Your task to perform on an android device: star an email in the gmail app Image 0: 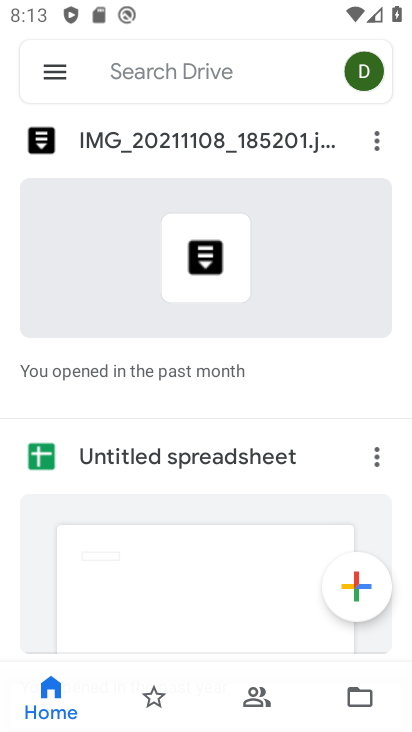
Step 0: press home button
Your task to perform on an android device: star an email in the gmail app Image 1: 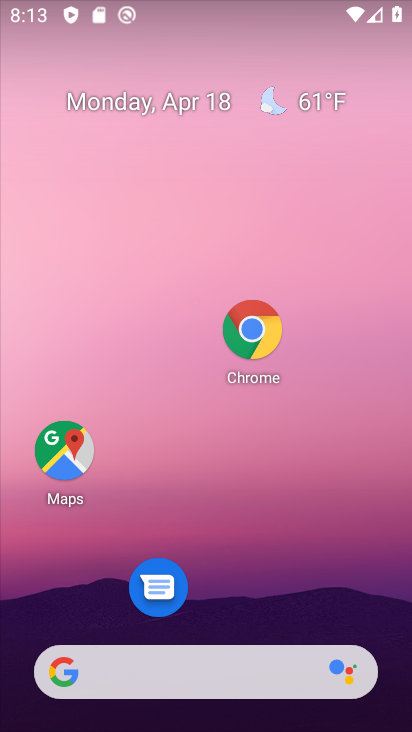
Step 1: drag from (268, 539) to (337, 107)
Your task to perform on an android device: star an email in the gmail app Image 2: 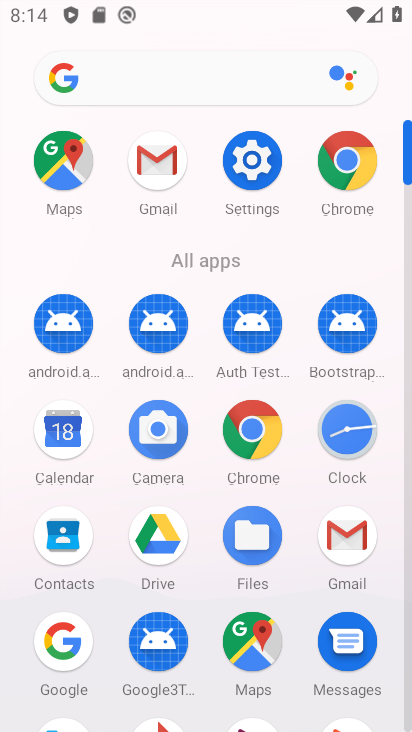
Step 2: click (152, 164)
Your task to perform on an android device: star an email in the gmail app Image 3: 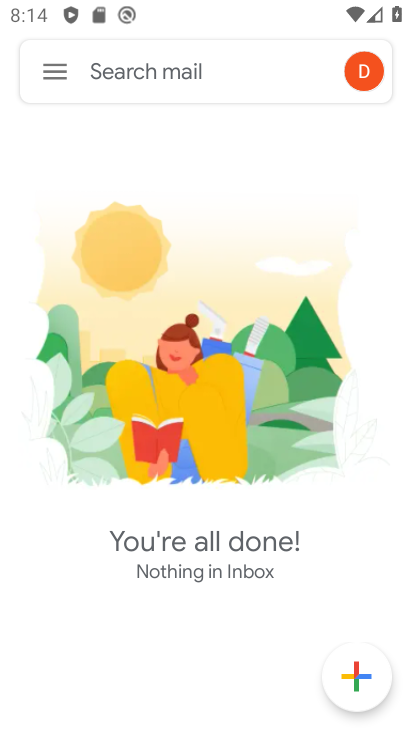
Step 3: click (42, 60)
Your task to perform on an android device: star an email in the gmail app Image 4: 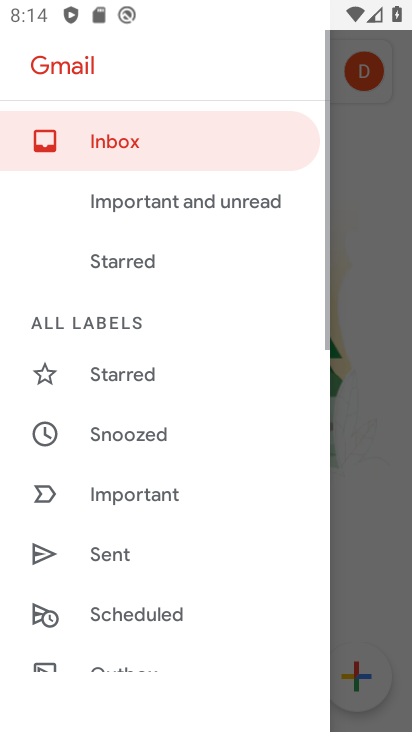
Step 4: click (137, 269)
Your task to perform on an android device: star an email in the gmail app Image 5: 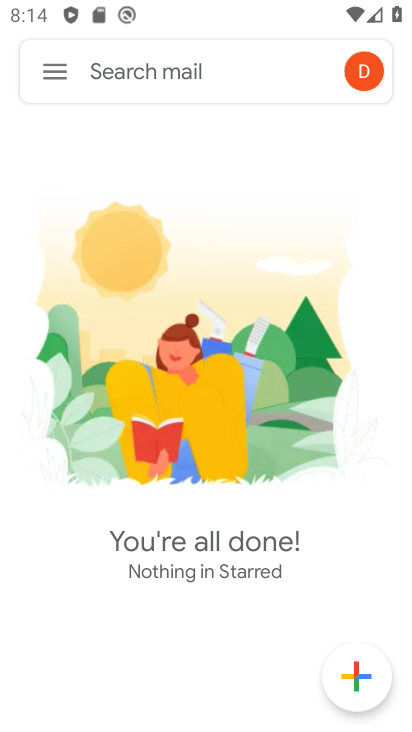
Step 5: task complete